Your task to perform on an android device: turn off smart reply in the gmail app Image 0: 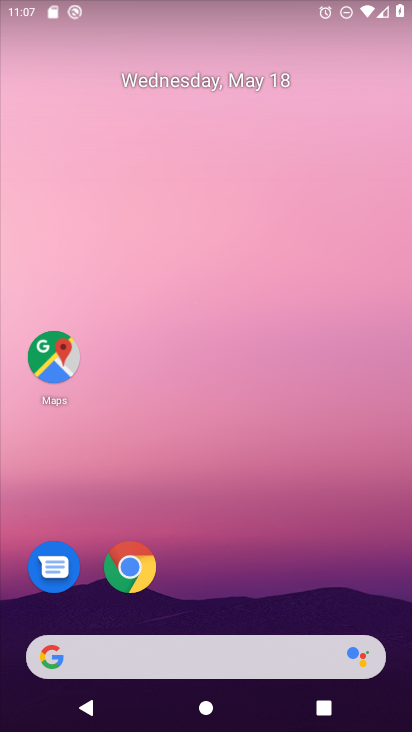
Step 0: press back button
Your task to perform on an android device: turn off smart reply in the gmail app Image 1: 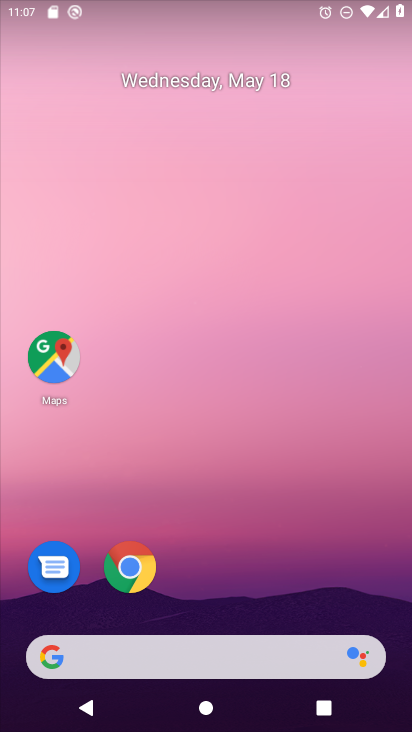
Step 1: drag from (277, 704) to (258, 399)
Your task to perform on an android device: turn off smart reply in the gmail app Image 2: 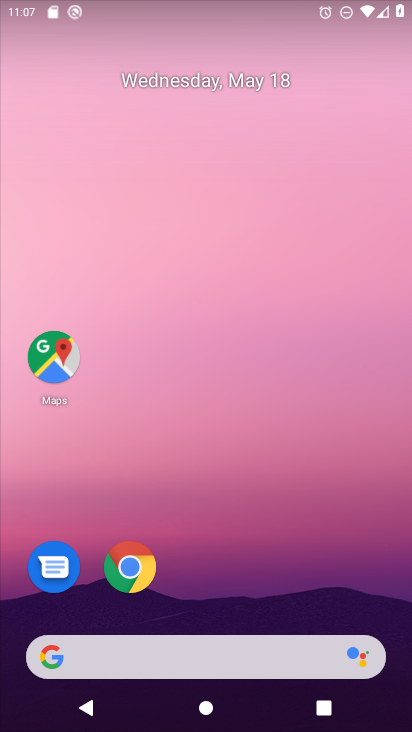
Step 2: drag from (289, 617) to (311, 118)
Your task to perform on an android device: turn off smart reply in the gmail app Image 3: 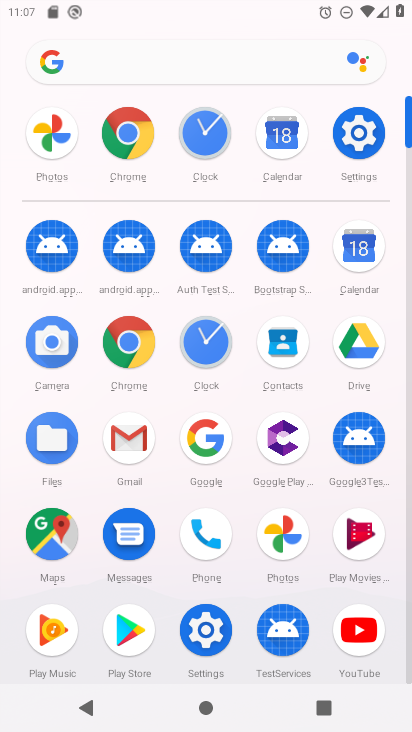
Step 3: click (116, 447)
Your task to perform on an android device: turn off smart reply in the gmail app Image 4: 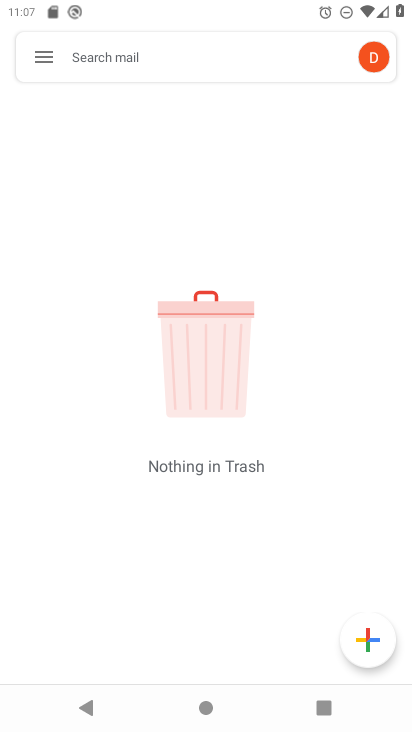
Step 4: click (39, 77)
Your task to perform on an android device: turn off smart reply in the gmail app Image 5: 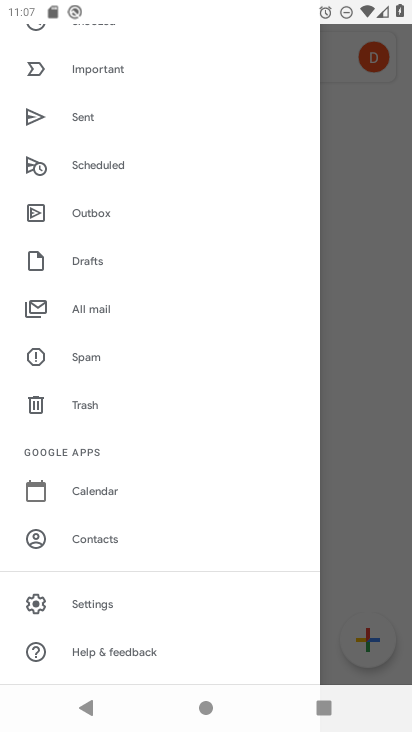
Step 5: click (85, 606)
Your task to perform on an android device: turn off smart reply in the gmail app Image 6: 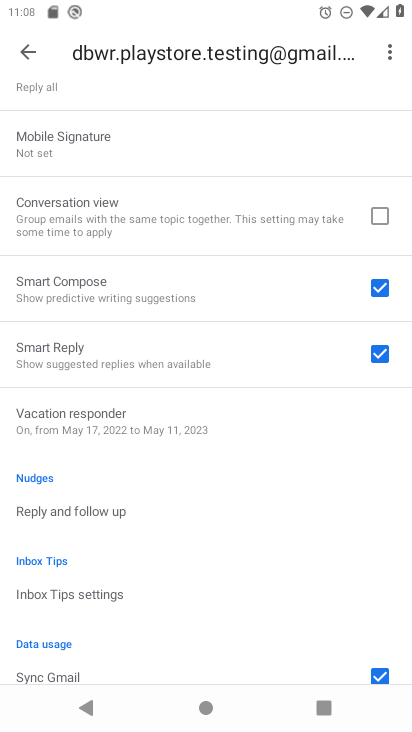
Step 6: drag from (112, 546) to (141, 266)
Your task to perform on an android device: turn off smart reply in the gmail app Image 7: 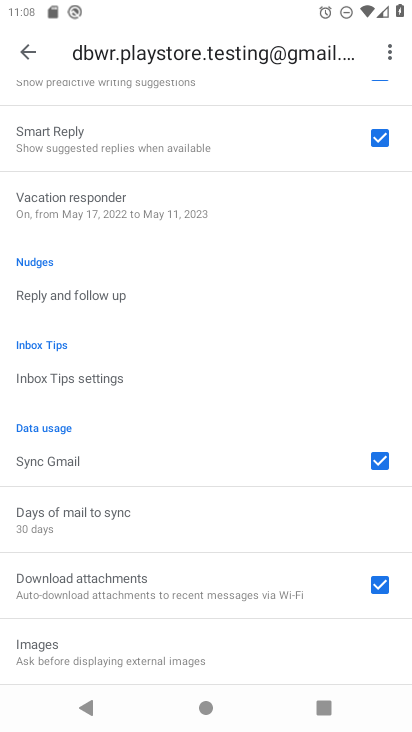
Step 7: drag from (101, 615) to (145, 410)
Your task to perform on an android device: turn off smart reply in the gmail app Image 8: 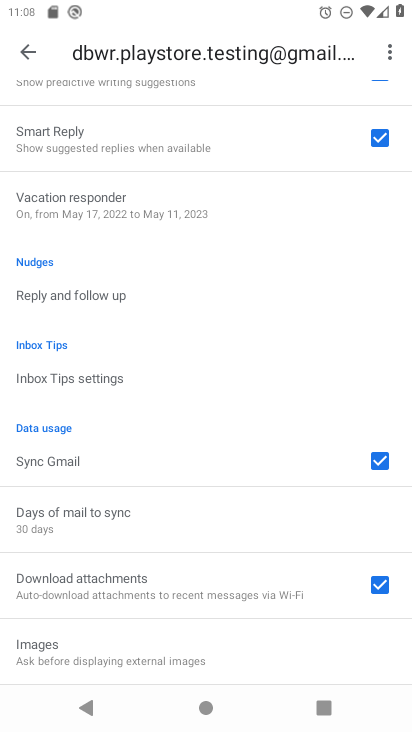
Step 8: drag from (164, 372) to (199, 554)
Your task to perform on an android device: turn off smart reply in the gmail app Image 9: 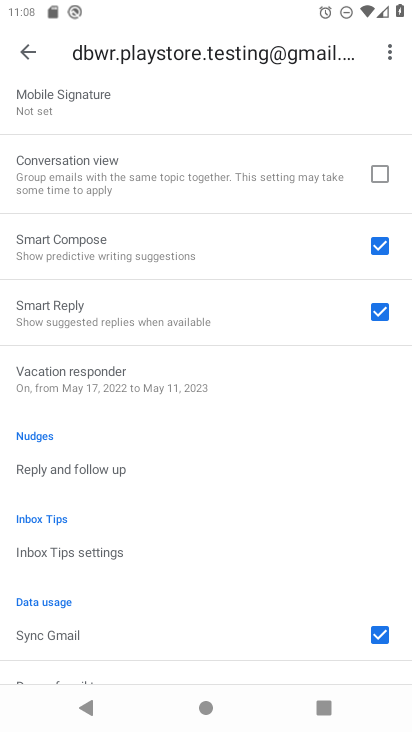
Step 9: click (376, 324)
Your task to perform on an android device: turn off smart reply in the gmail app Image 10: 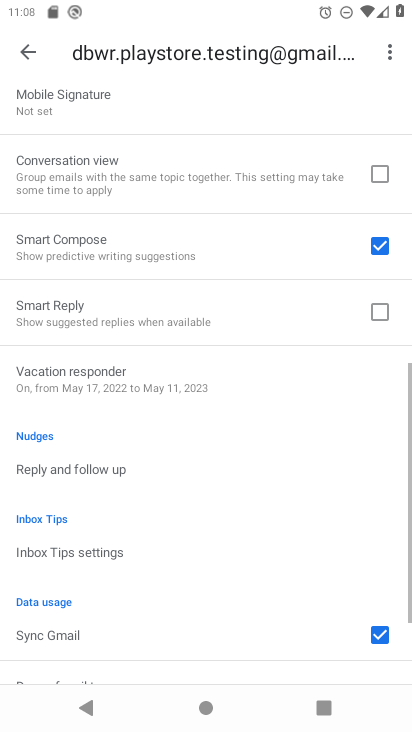
Step 10: task complete